Your task to perform on an android device: allow cookies in the chrome app Image 0: 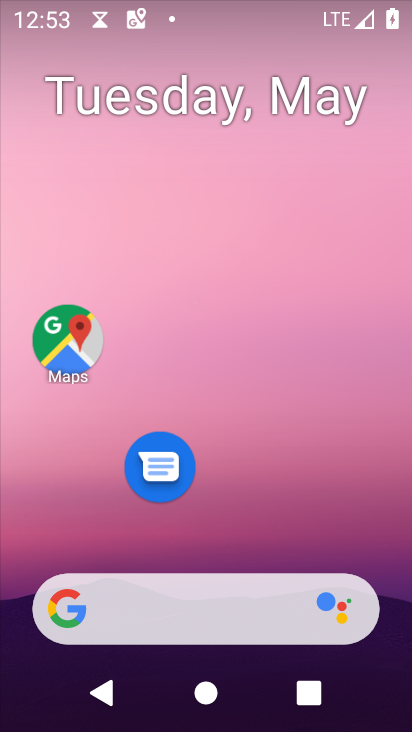
Step 0: drag from (266, 535) to (300, 100)
Your task to perform on an android device: allow cookies in the chrome app Image 1: 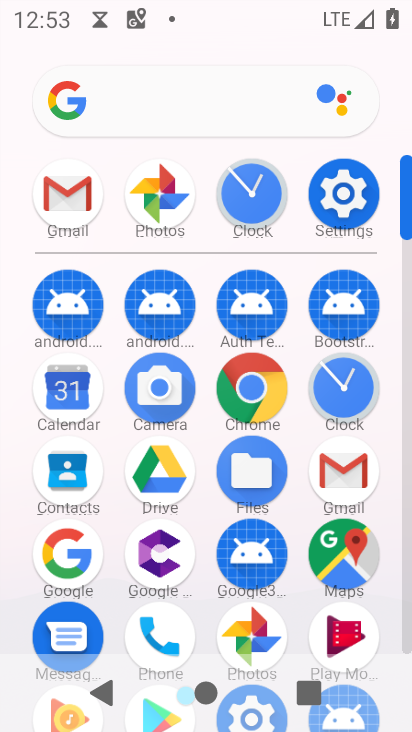
Step 1: click (259, 382)
Your task to perform on an android device: allow cookies in the chrome app Image 2: 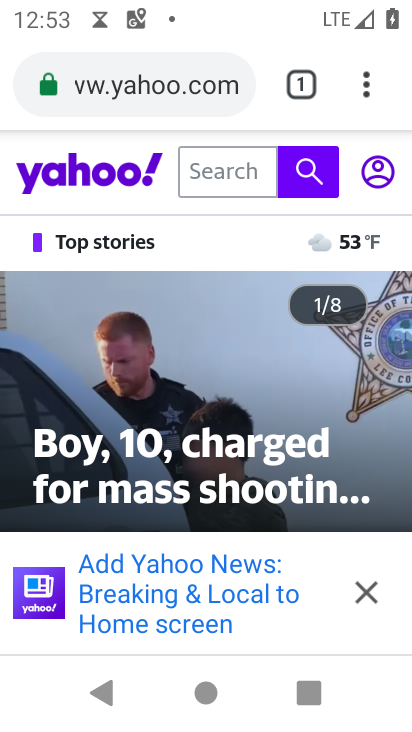
Step 2: click (381, 81)
Your task to perform on an android device: allow cookies in the chrome app Image 3: 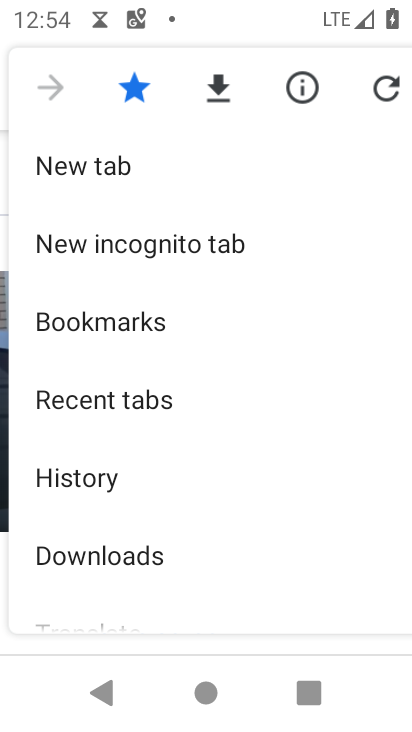
Step 3: drag from (202, 537) to (228, 215)
Your task to perform on an android device: allow cookies in the chrome app Image 4: 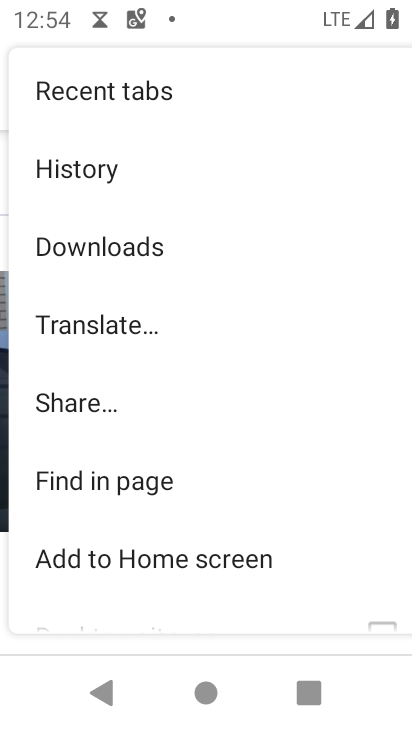
Step 4: drag from (183, 583) to (230, 191)
Your task to perform on an android device: allow cookies in the chrome app Image 5: 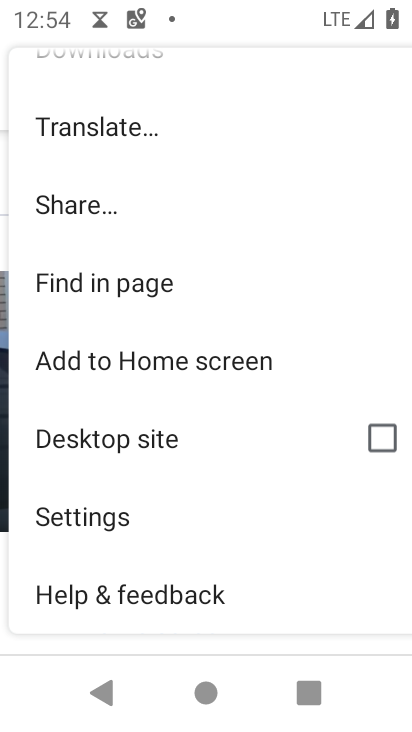
Step 5: click (106, 520)
Your task to perform on an android device: allow cookies in the chrome app Image 6: 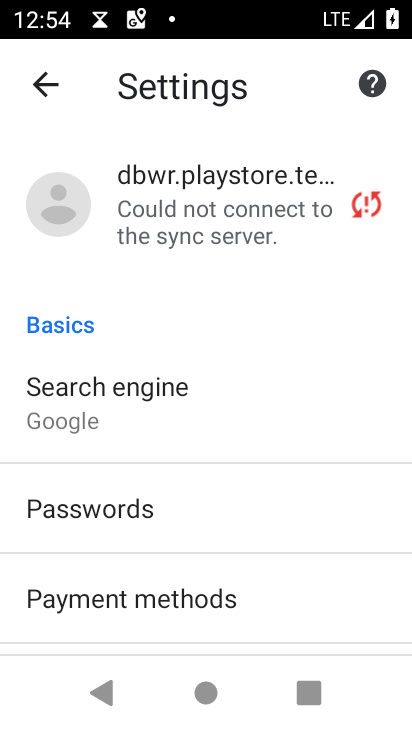
Step 6: drag from (248, 581) to (279, 173)
Your task to perform on an android device: allow cookies in the chrome app Image 7: 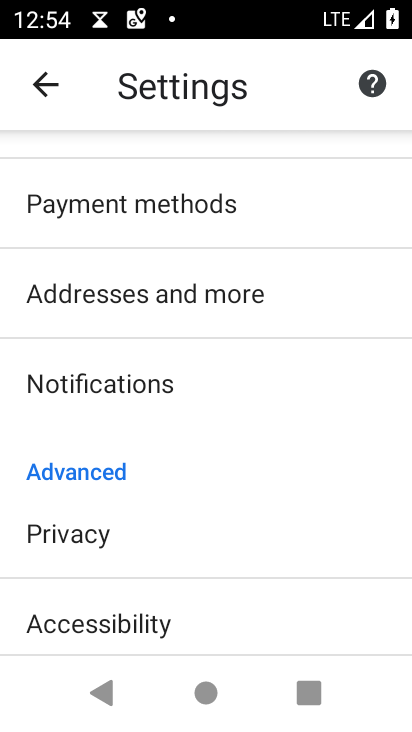
Step 7: drag from (223, 588) to (253, 289)
Your task to perform on an android device: allow cookies in the chrome app Image 8: 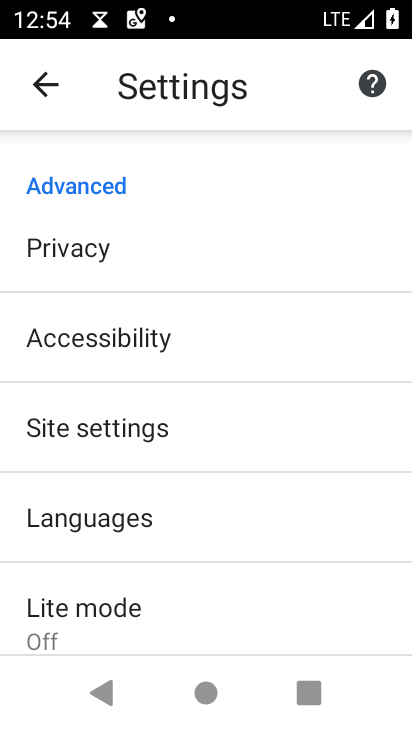
Step 8: click (197, 431)
Your task to perform on an android device: allow cookies in the chrome app Image 9: 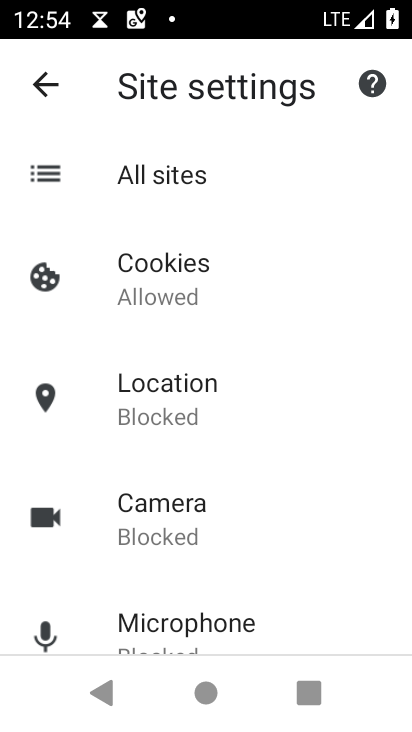
Step 9: click (187, 270)
Your task to perform on an android device: allow cookies in the chrome app Image 10: 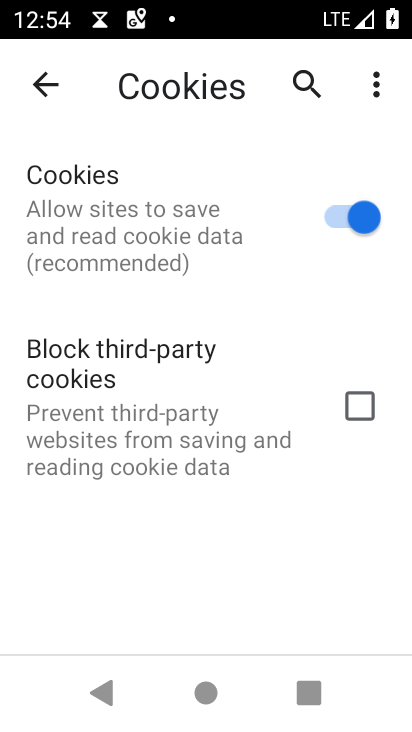
Step 10: task complete